Your task to perform on an android device: turn off notifications settings in the gmail app Image 0: 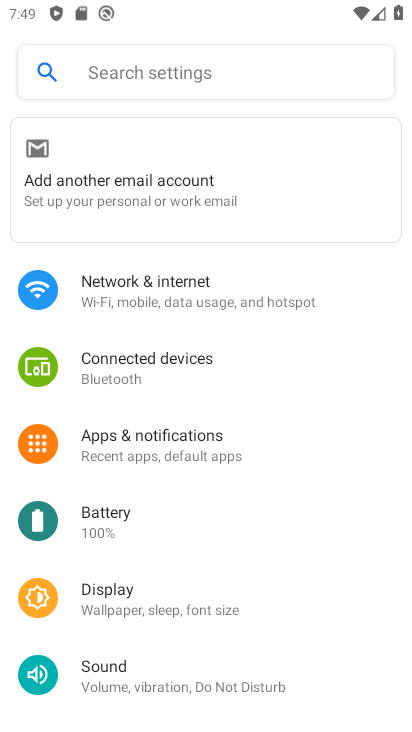
Step 0: press home button
Your task to perform on an android device: turn off notifications settings in the gmail app Image 1: 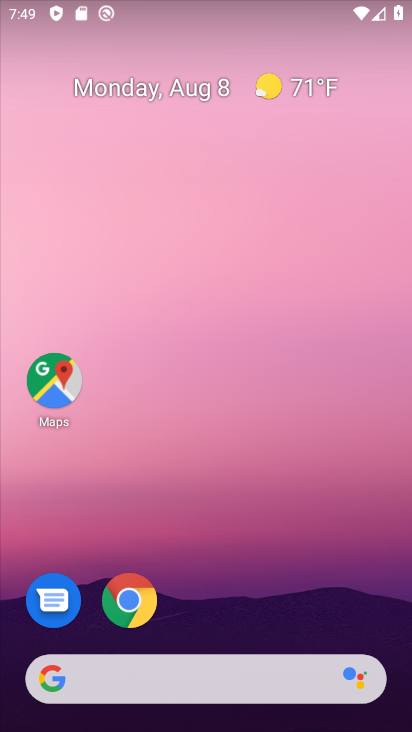
Step 1: drag from (223, 643) to (193, 55)
Your task to perform on an android device: turn off notifications settings in the gmail app Image 2: 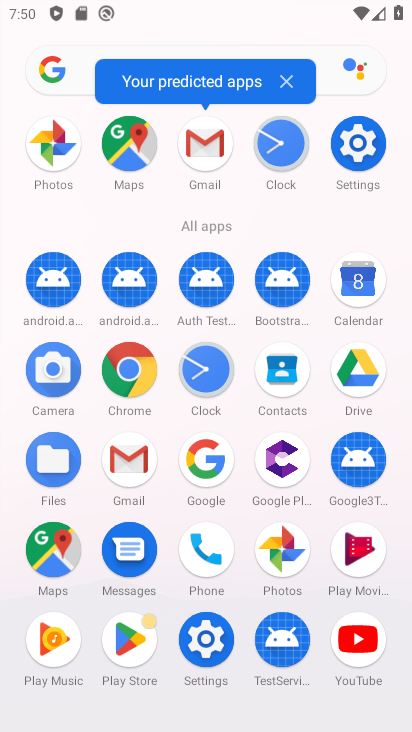
Step 2: click (131, 463)
Your task to perform on an android device: turn off notifications settings in the gmail app Image 3: 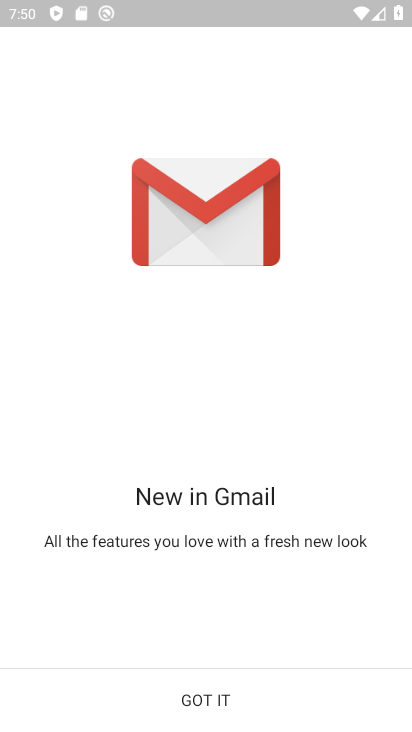
Step 3: click (254, 707)
Your task to perform on an android device: turn off notifications settings in the gmail app Image 4: 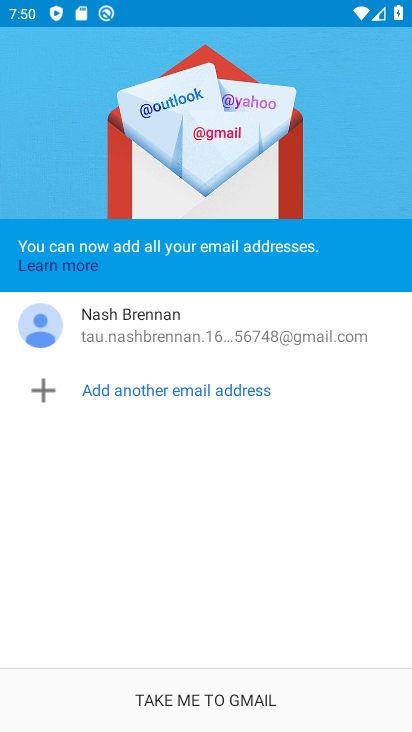
Step 4: click (282, 688)
Your task to perform on an android device: turn off notifications settings in the gmail app Image 5: 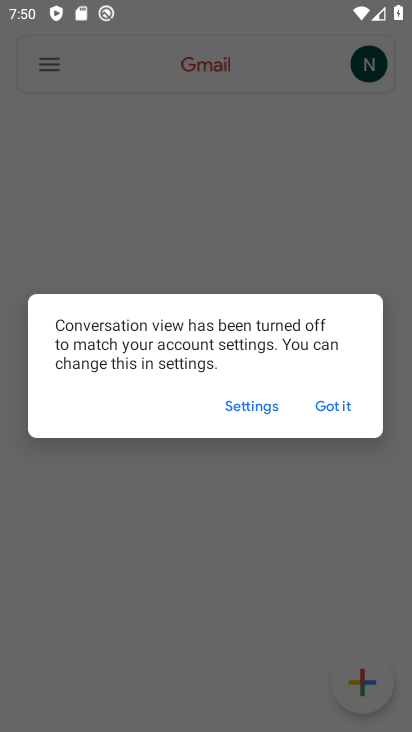
Step 5: click (323, 390)
Your task to perform on an android device: turn off notifications settings in the gmail app Image 6: 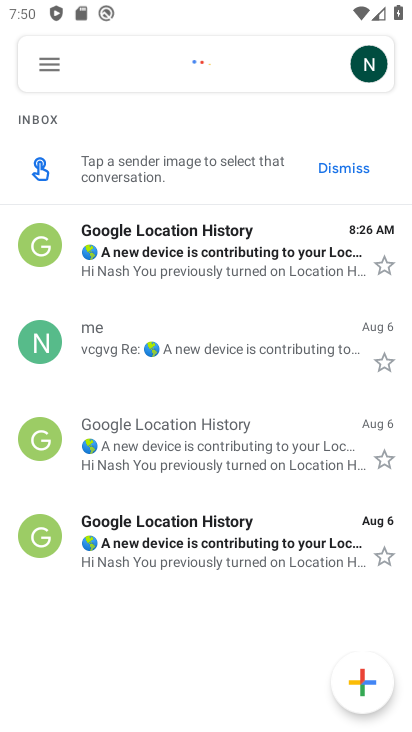
Step 6: click (49, 58)
Your task to perform on an android device: turn off notifications settings in the gmail app Image 7: 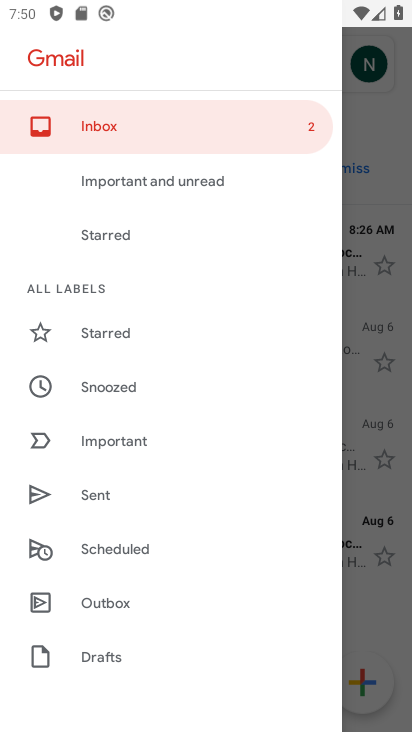
Step 7: drag from (226, 588) to (223, 86)
Your task to perform on an android device: turn off notifications settings in the gmail app Image 8: 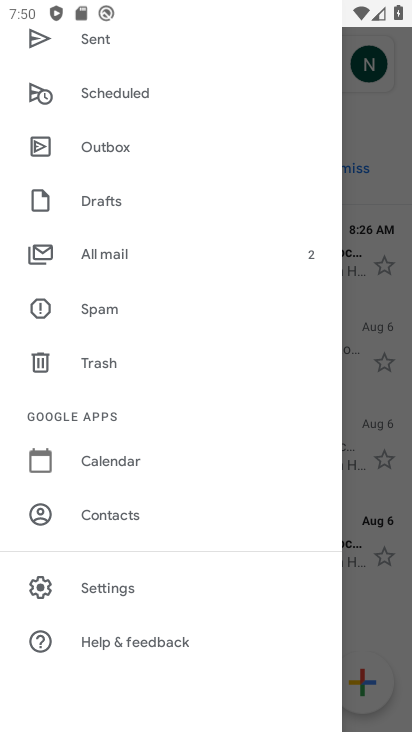
Step 8: click (106, 586)
Your task to perform on an android device: turn off notifications settings in the gmail app Image 9: 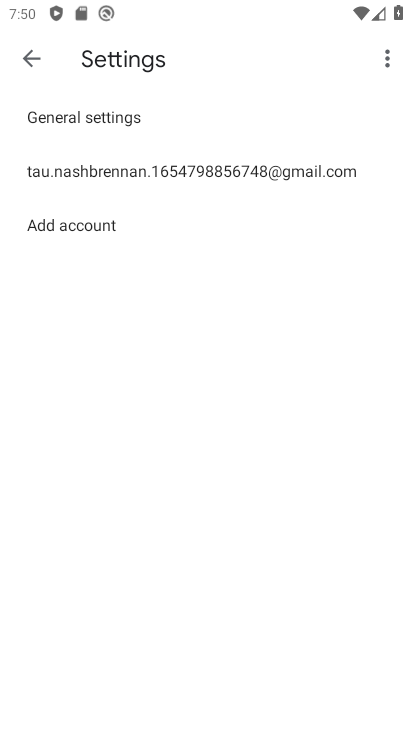
Step 9: click (57, 113)
Your task to perform on an android device: turn off notifications settings in the gmail app Image 10: 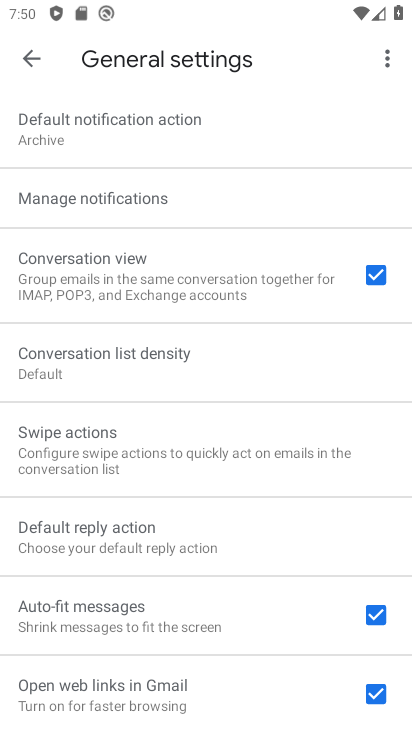
Step 10: click (113, 201)
Your task to perform on an android device: turn off notifications settings in the gmail app Image 11: 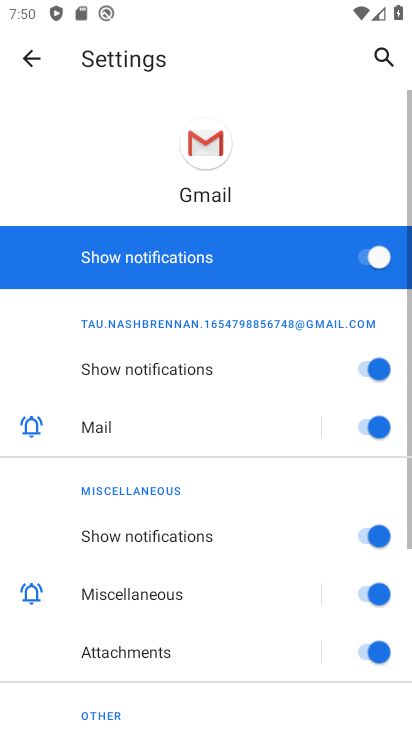
Step 11: click (390, 262)
Your task to perform on an android device: turn off notifications settings in the gmail app Image 12: 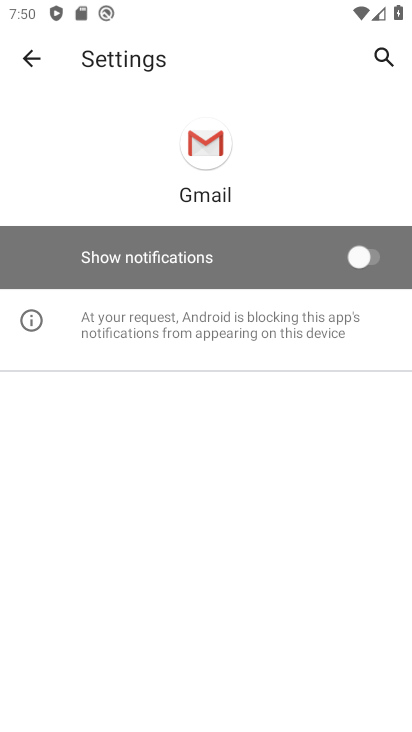
Step 12: task complete